Your task to perform on an android device: toggle priority inbox in the gmail app Image 0: 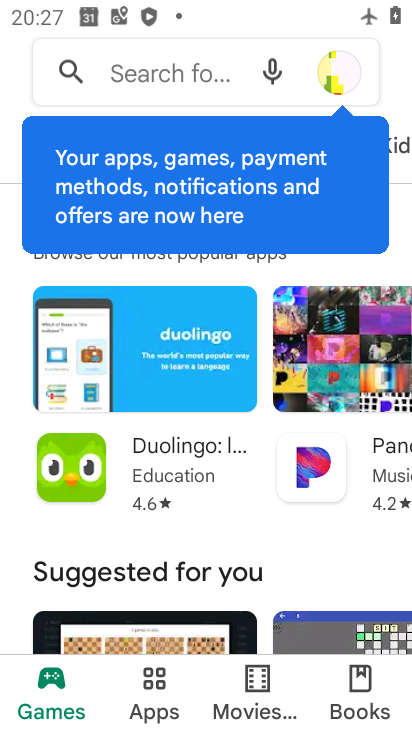
Step 0: press home button
Your task to perform on an android device: toggle priority inbox in the gmail app Image 1: 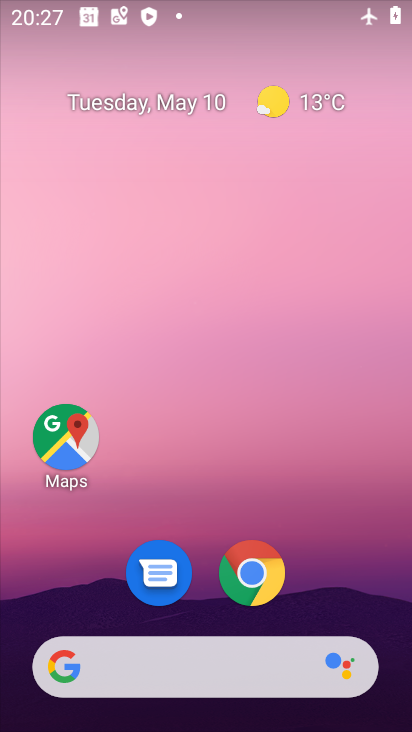
Step 1: drag from (389, 610) to (406, 44)
Your task to perform on an android device: toggle priority inbox in the gmail app Image 2: 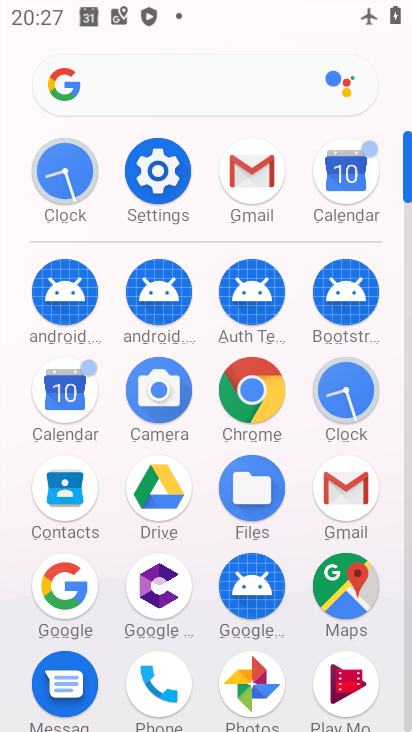
Step 2: click (251, 181)
Your task to perform on an android device: toggle priority inbox in the gmail app Image 3: 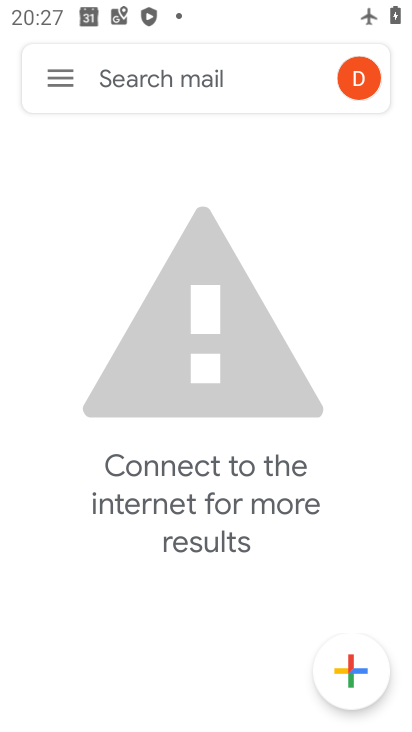
Step 3: click (66, 84)
Your task to perform on an android device: toggle priority inbox in the gmail app Image 4: 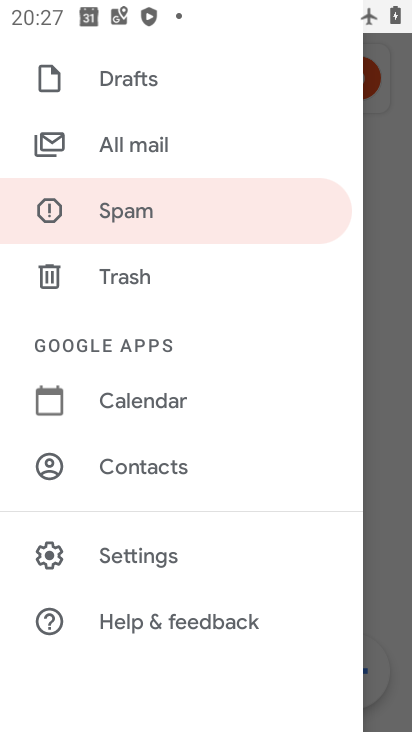
Step 4: click (121, 561)
Your task to perform on an android device: toggle priority inbox in the gmail app Image 5: 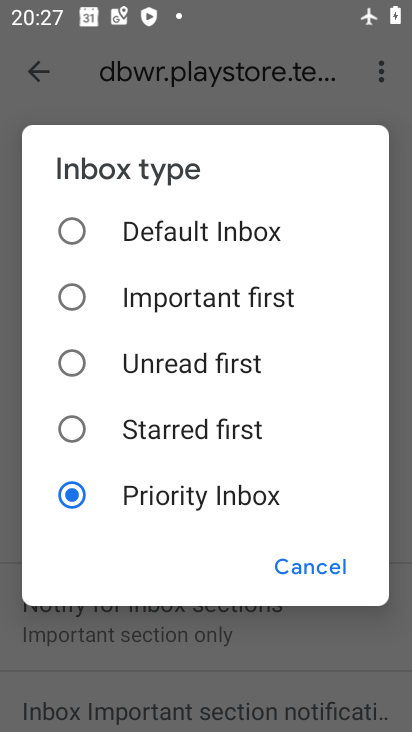
Step 5: click (70, 237)
Your task to perform on an android device: toggle priority inbox in the gmail app Image 6: 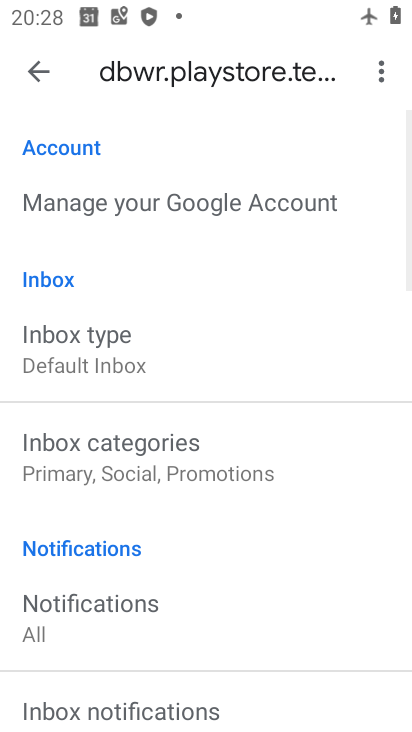
Step 6: task complete